Your task to perform on an android device: set an alarm Image 0: 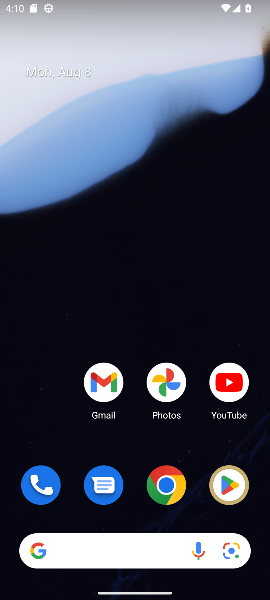
Step 0: drag from (149, 392) to (149, 257)
Your task to perform on an android device: set an alarm Image 1: 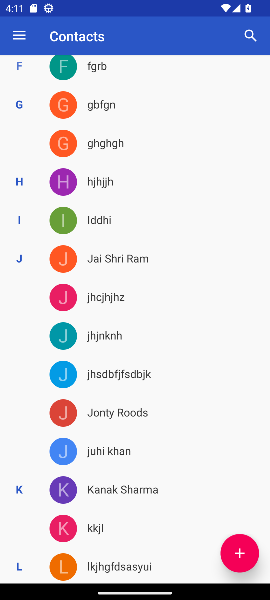
Step 1: press back button
Your task to perform on an android device: set an alarm Image 2: 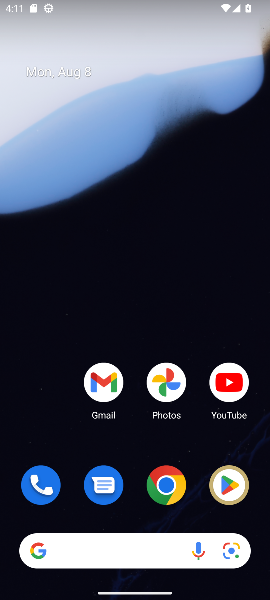
Step 2: drag from (183, 549) to (168, 191)
Your task to perform on an android device: set an alarm Image 3: 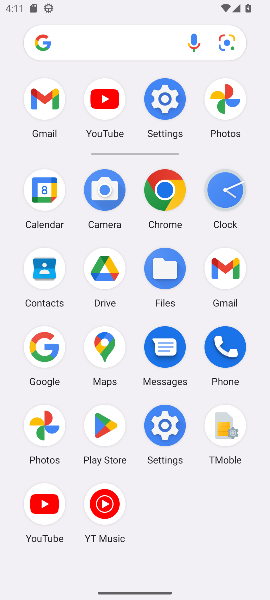
Step 3: click (228, 222)
Your task to perform on an android device: set an alarm Image 4: 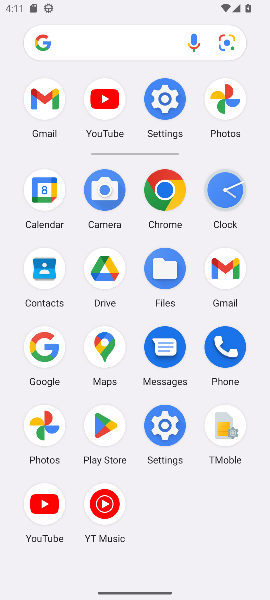
Step 4: click (228, 194)
Your task to perform on an android device: set an alarm Image 5: 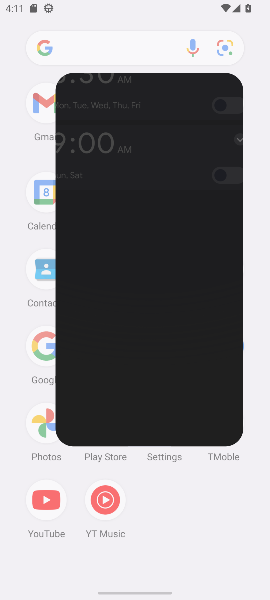
Step 5: click (227, 193)
Your task to perform on an android device: set an alarm Image 6: 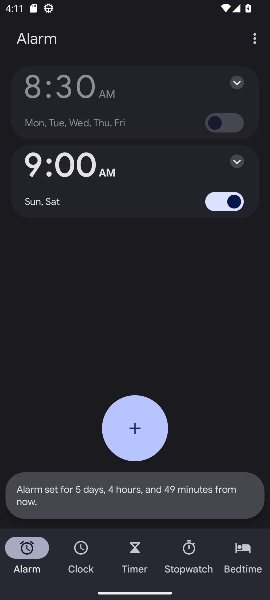
Step 6: click (231, 125)
Your task to perform on an android device: set an alarm Image 7: 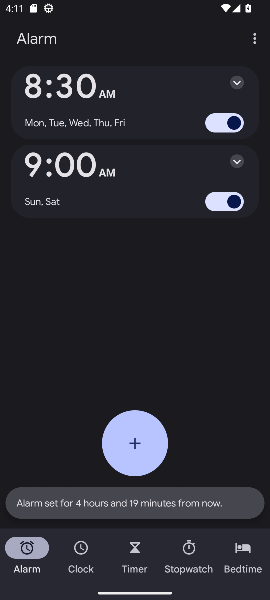
Step 7: task complete